Your task to perform on an android device: Open CNN.com Image 0: 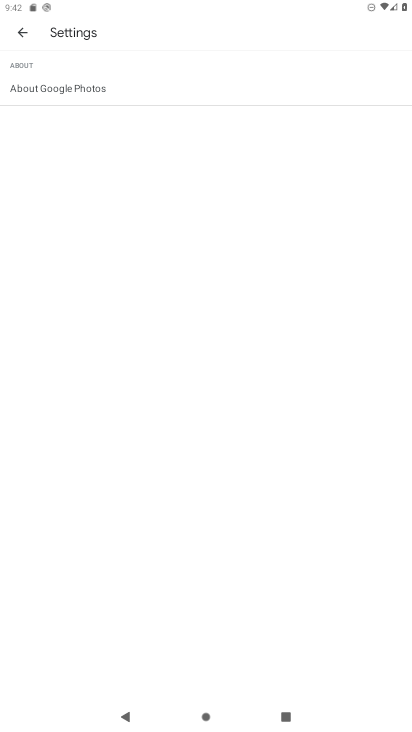
Step 0: press home button
Your task to perform on an android device: Open CNN.com Image 1: 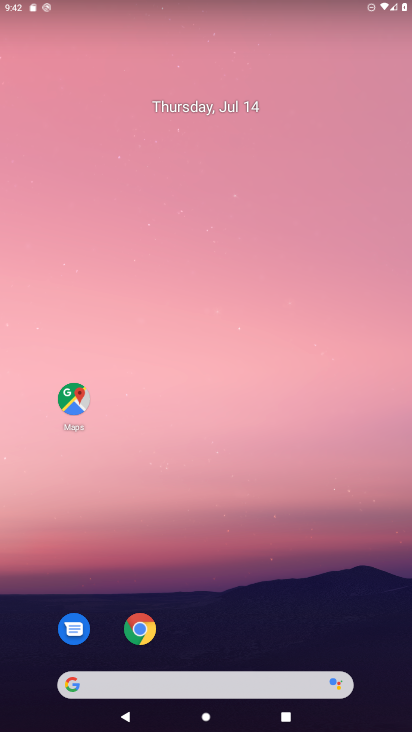
Step 1: drag from (189, 637) to (230, 3)
Your task to perform on an android device: Open CNN.com Image 2: 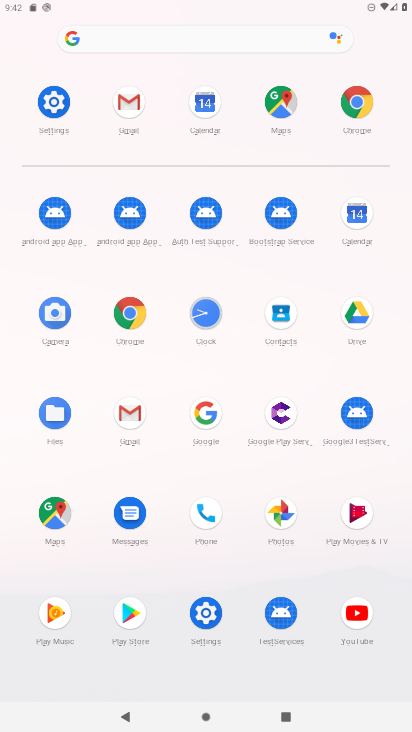
Step 2: click (127, 307)
Your task to perform on an android device: Open CNN.com Image 3: 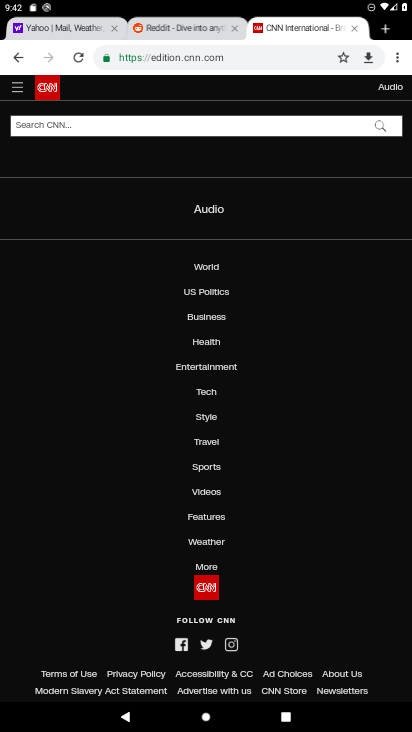
Step 3: click (214, 49)
Your task to perform on an android device: Open CNN.com Image 4: 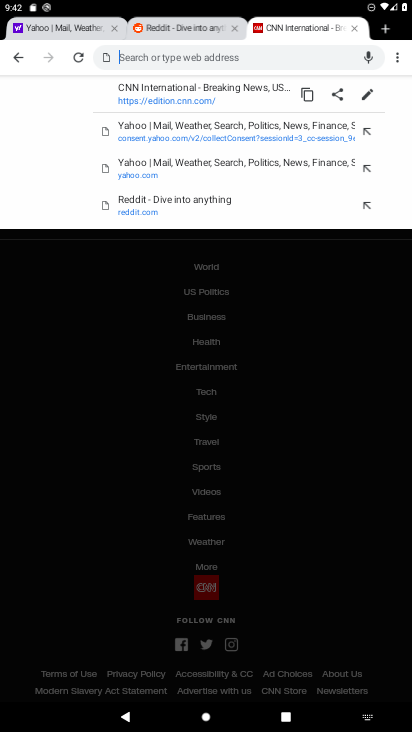
Step 4: type "CNN.com"
Your task to perform on an android device: Open CNN.com Image 5: 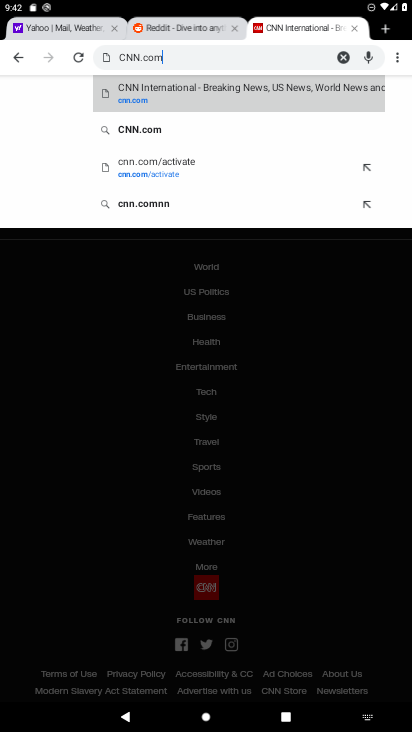
Step 5: click (128, 100)
Your task to perform on an android device: Open CNN.com Image 6: 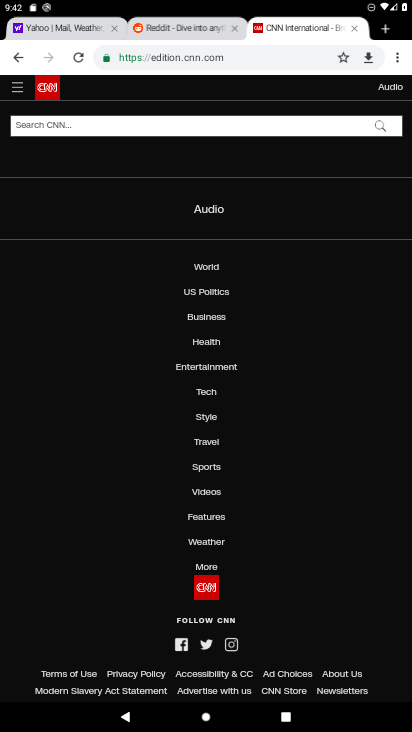
Step 6: task complete